Your task to perform on an android device: check google app version Image 0: 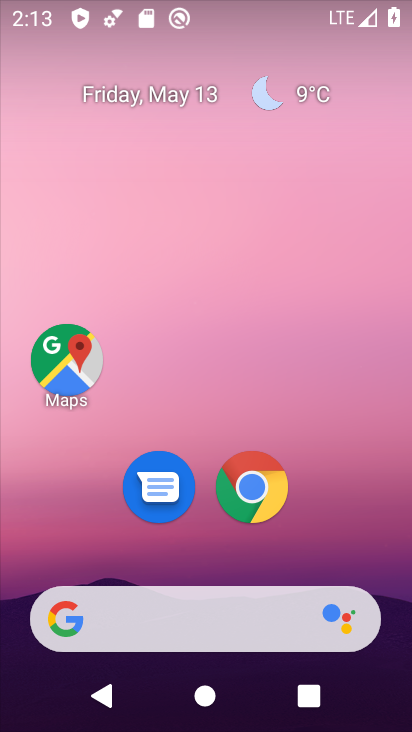
Step 0: drag from (212, 540) to (236, 48)
Your task to perform on an android device: check google app version Image 1: 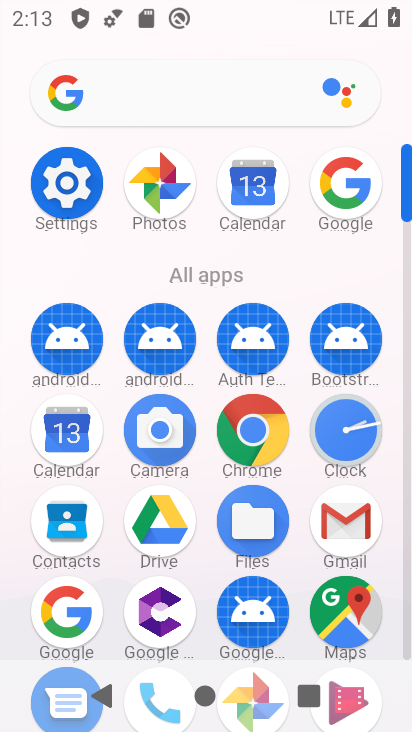
Step 1: click (67, 607)
Your task to perform on an android device: check google app version Image 2: 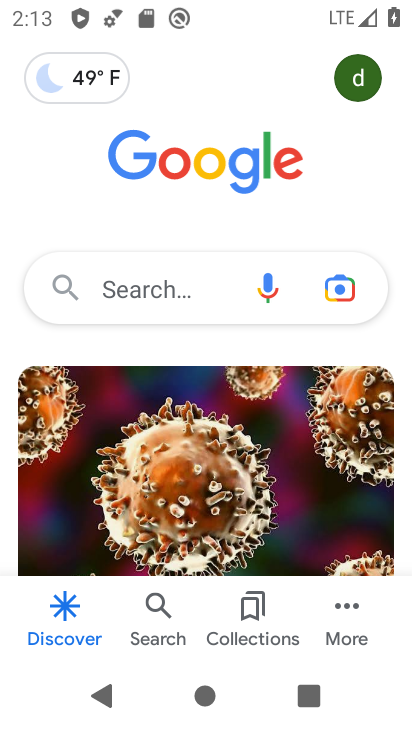
Step 2: click (342, 639)
Your task to perform on an android device: check google app version Image 3: 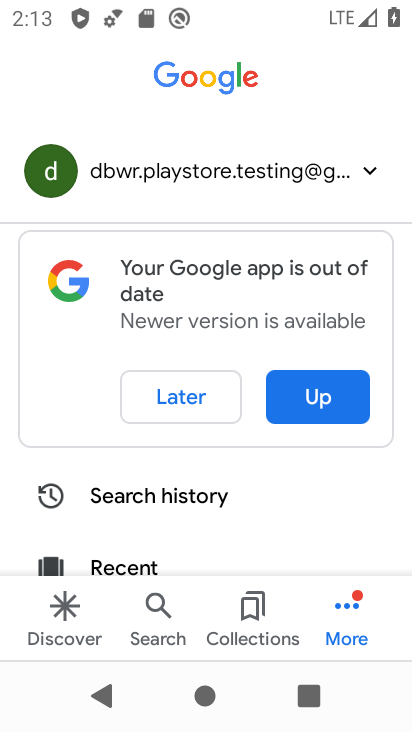
Step 3: drag from (178, 536) to (197, 67)
Your task to perform on an android device: check google app version Image 4: 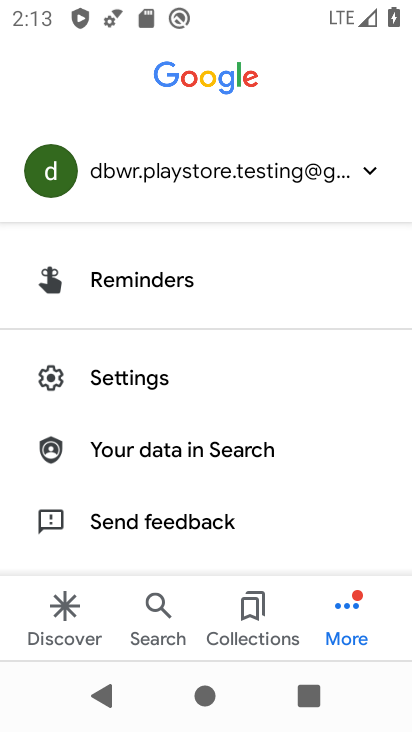
Step 4: click (127, 338)
Your task to perform on an android device: check google app version Image 5: 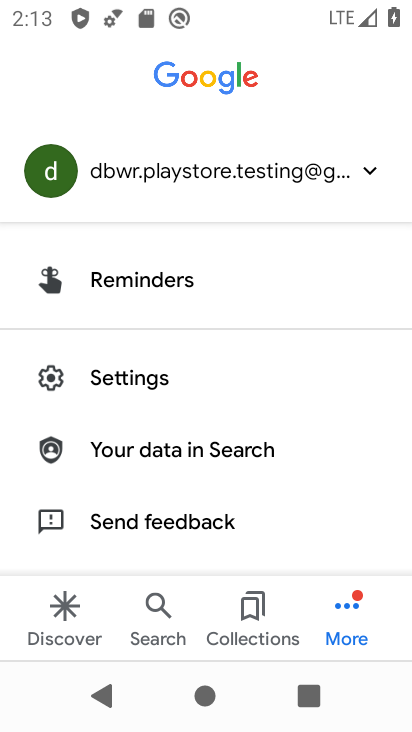
Step 5: click (162, 373)
Your task to perform on an android device: check google app version Image 6: 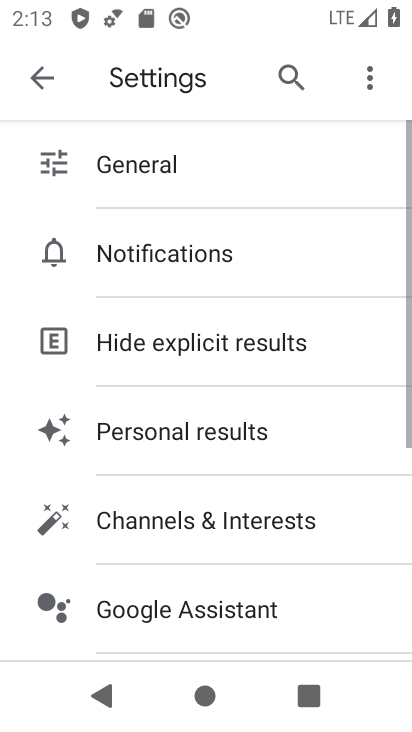
Step 6: drag from (215, 493) to (231, 107)
Your task to perform on an android device: check google app version Image 7: 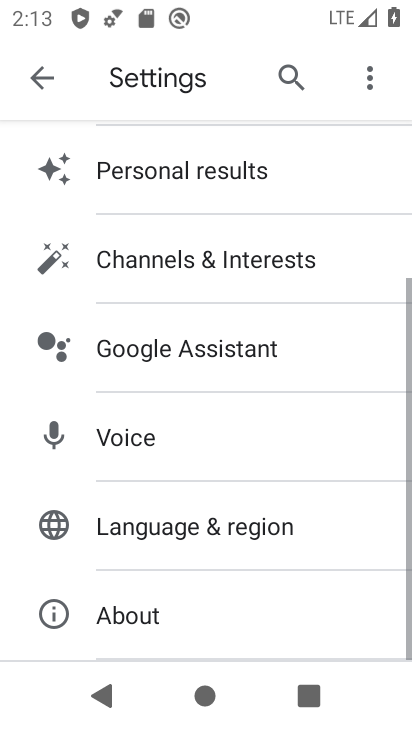
Step 7: click (156, 625)
Your task to perform on an android device: check google app version Image 8: 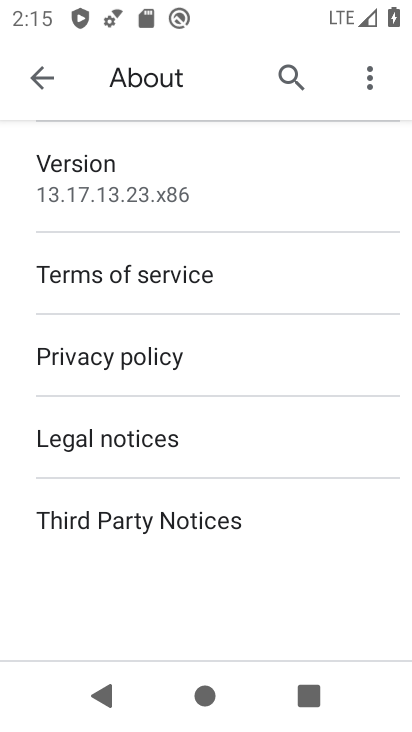
Step 8: task complete